Your task to perform on an android device: toggle pop-ups in chrome Image 0: 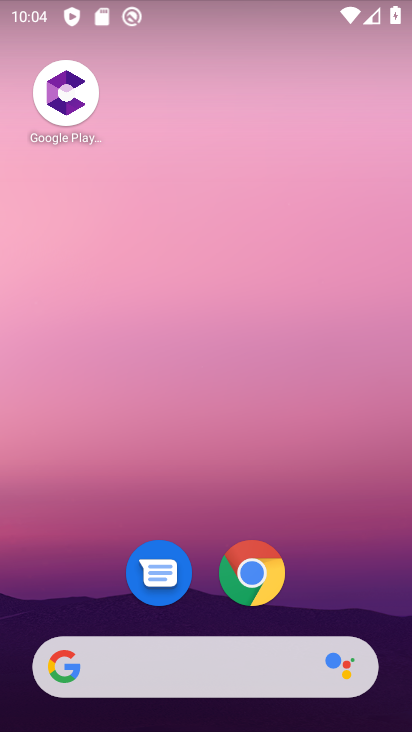
Step 0: click (256, 571)
Your task to perform on an android device: toggle pop-ups in chrome Image 1: 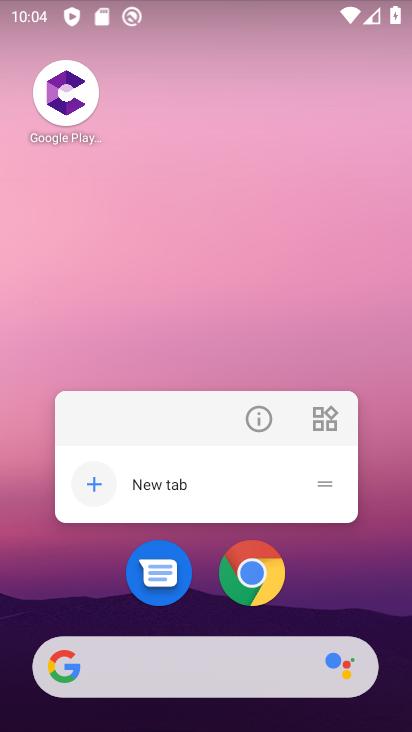
Step 1: click (256, 576)
Your task to perform on an android device: toggle pop-ups in chrome Image 2: 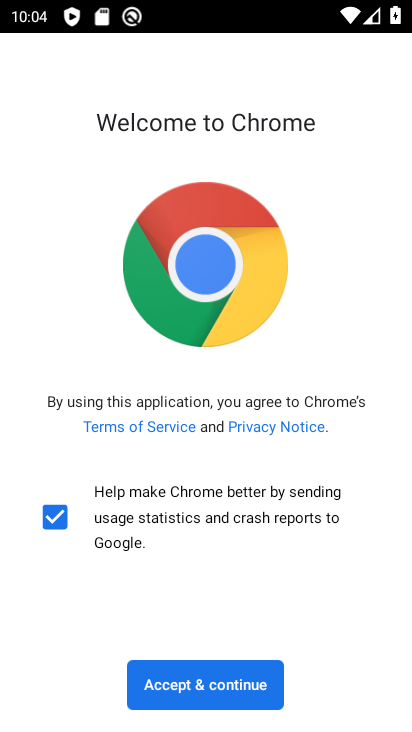
Step 2: click (217, 682)
Your task to perform on an android device: toggle pop-ups in chrome Image 3: 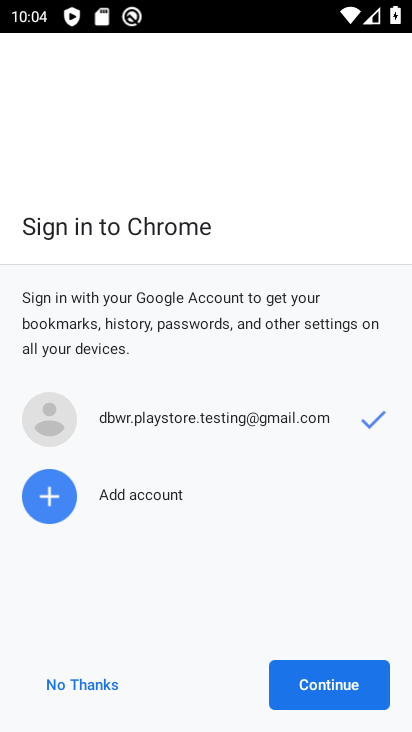
Step 3: click (325, 694)
Your task to perform on an android device: toggle pop-ups in chrome Image 4: 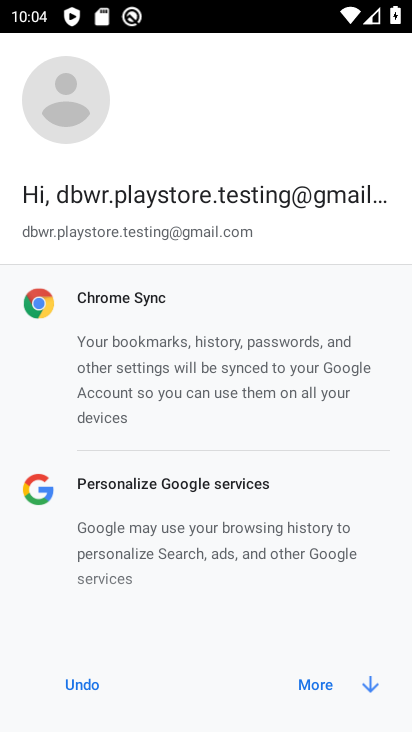
Step 4: click (325, 694)
Your task to perform on an android device: toggle pop-ups in chrome Image 5: 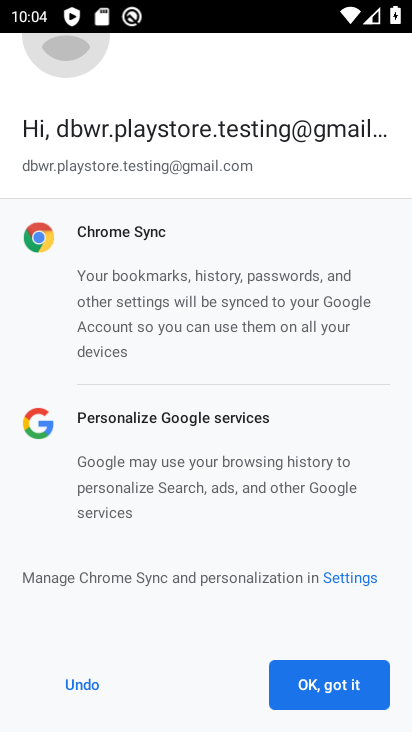
Step 5: click (325, 694)
Your task to perform on an android device: toggle pop-ups in chrome Image 6: 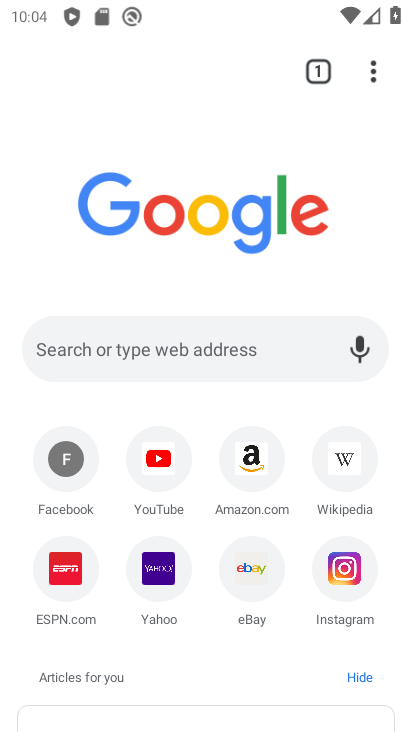
Step 6: click (381, 72)
Your task to perform on an android device: toggle pop-ups in chrome Image 7: 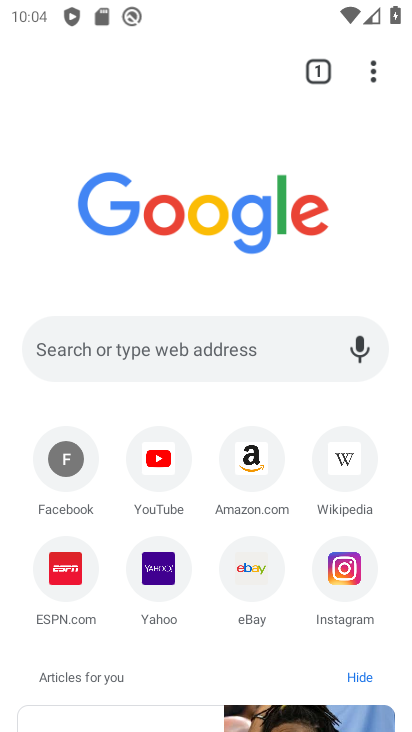
Step 7: click (370, 63)
Your task to perform on an android device: toggle pop-ups in chrome Image 8: 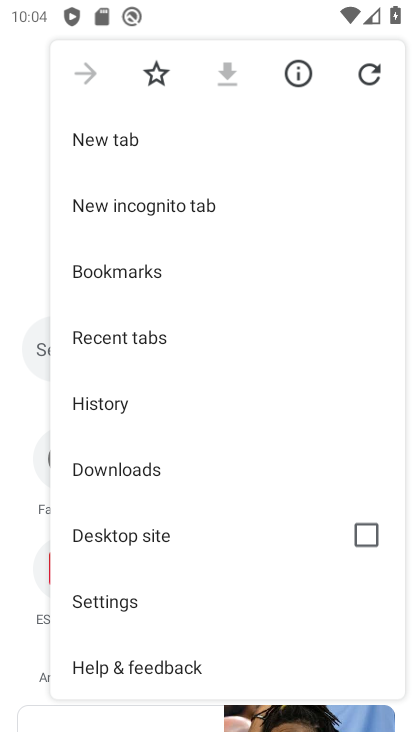
Step 8: click (131, 596)
Your task to perform on an android device: toggle pop-ups in chrome Image 9: 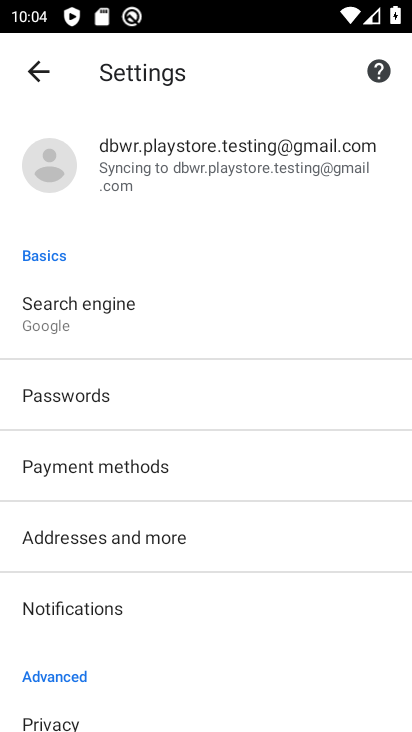
Step 9: drag from (150, 663) to (204, 328)
Your task to perform on an android device: toggle pop-ups in chrome Image 10: 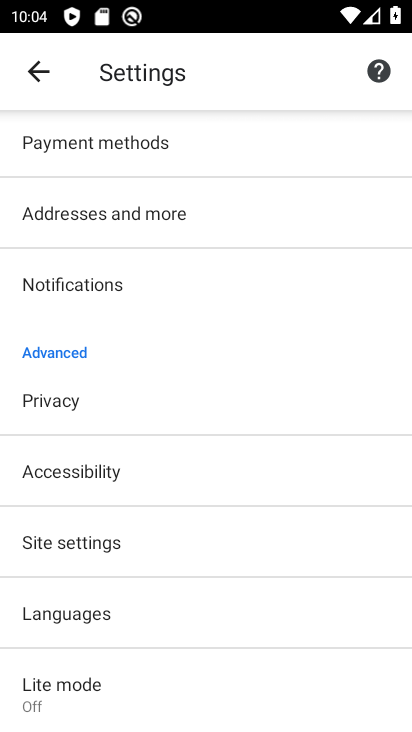
Step 10: click (75, 539)
Your task to perform on an android device: toggle pop-ups in chrome Image 11: 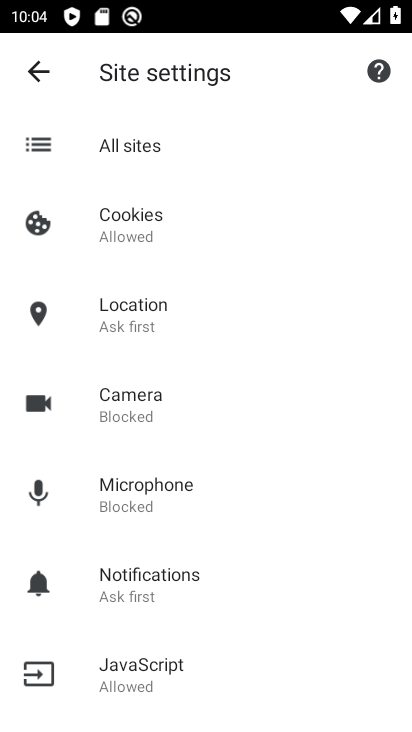
Step 11: drag from (122, 710) to (179, 324)
Your task to perform on an android device: toggle pop-ups in chrome Image 12: 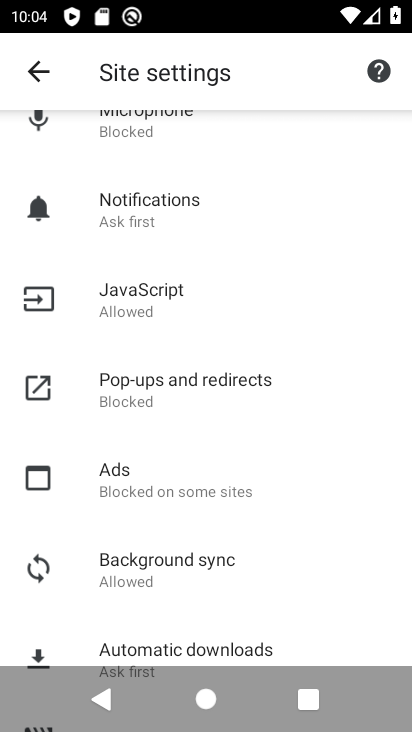
Step 12: click (140, 572)
Your task to perform on an android device: toggle pop-ups in chrome Image 13: 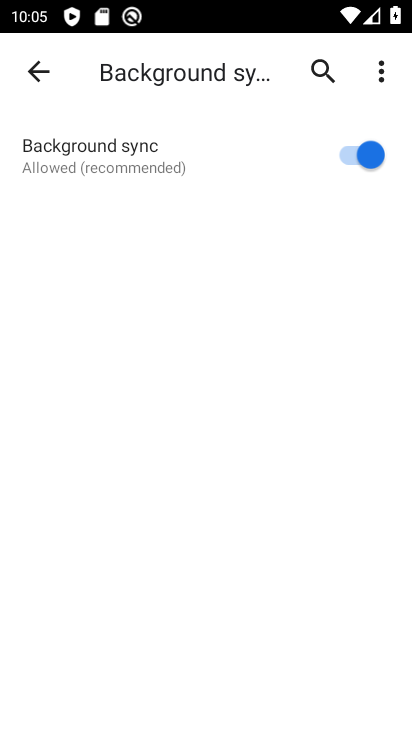
Step 13: click (357, 156)
Your task to perform on an android device: toggle pop-ups in chrome Image 14: 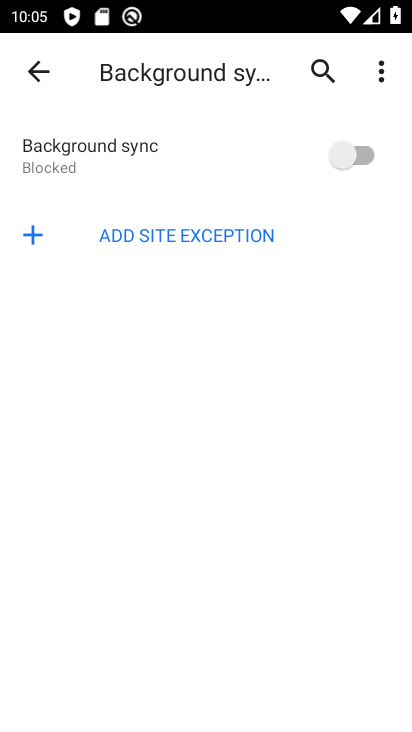
Step 14: task complete